Your task to perform on an android device: open sync settings in chrome Image 0: 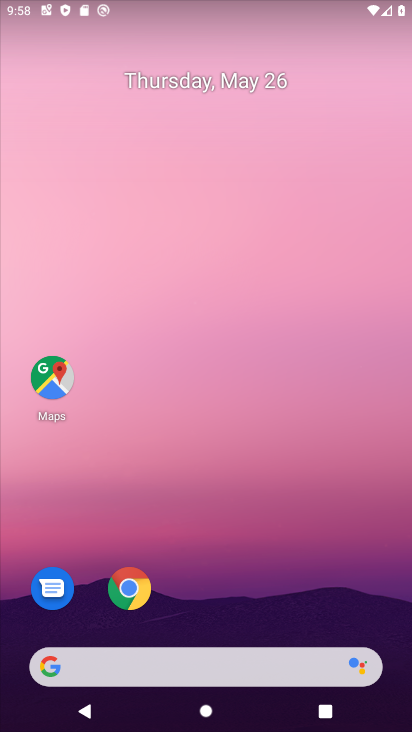
Step 0: click (126, 580)
Your task to perform on an android device: open sync settings in chrome Image 1: 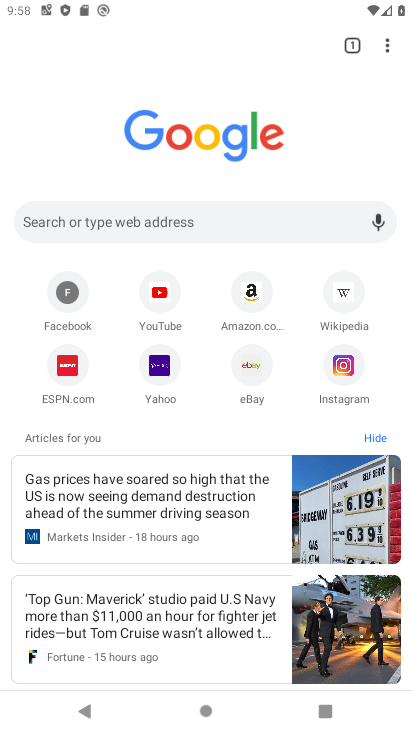
Step 1: click (386, 51)
Your task to perform on an android device: open sync settings in chrome Image 2: 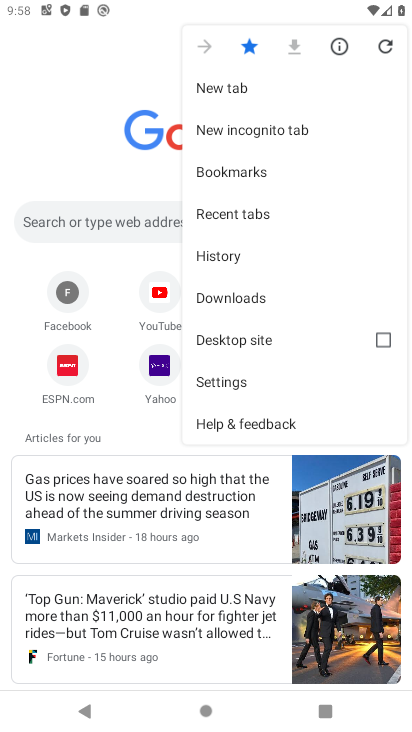
Step 2: click (229, 384)
Your task to perform on an android device: open sync settings in chrome Image 3: 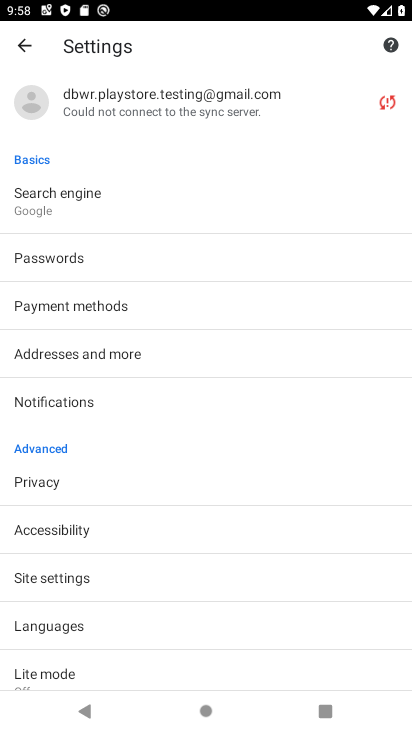
Step 3: drag from (97, 675) to (94, 397)
Your task to perform on an android device: open sync settings in chrome Image 4: 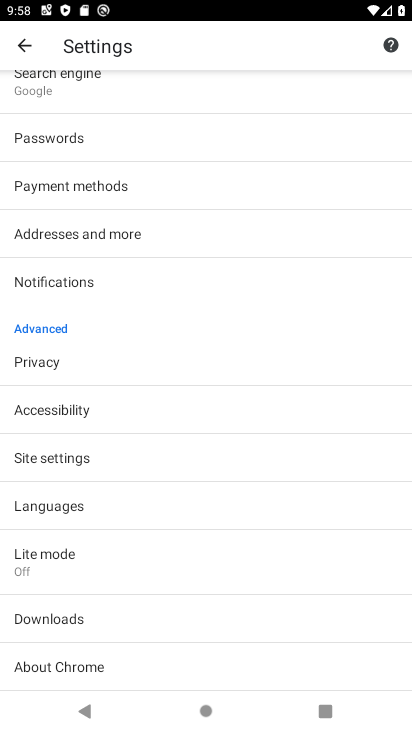
Step 4: click (76, 458)
Your task to perform on an android device: open sync settings in chrome Image 5: 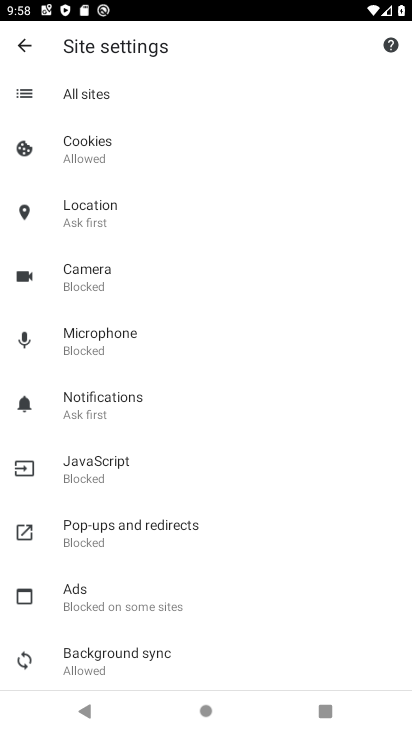
Step 5: click (138, 651)
Your task to perform on an android device: open sync settings in chrome Image 6: 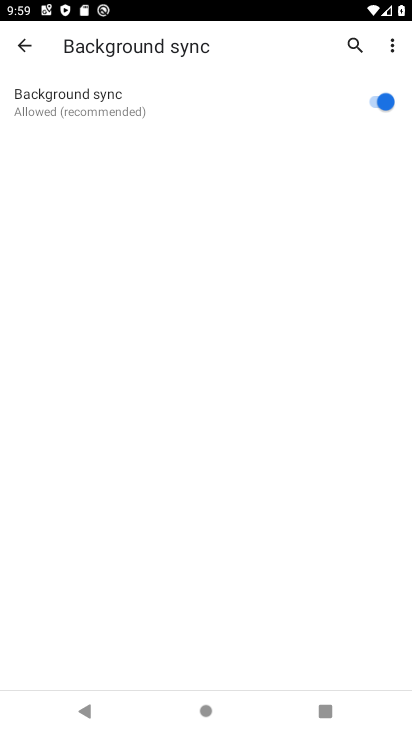
Step 6: task complete